Your task to perform on an android device: Show the shopping cart on ebay.com. Add "alienware aurora" to the cart on ebay.com Image 0: 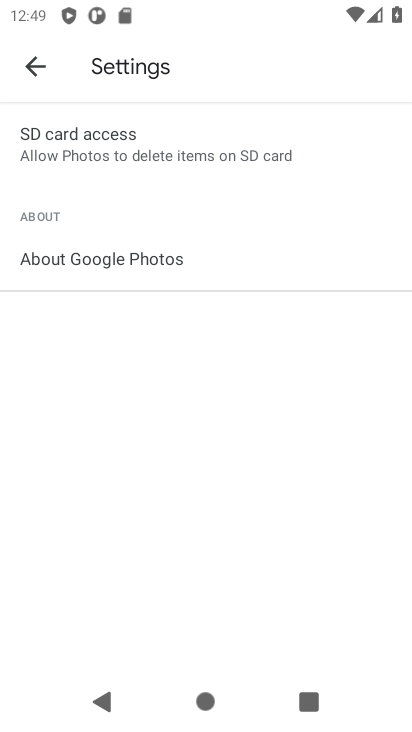
Step 0: press home button
Your task to perform on an android device: Show the shopping cart on ebay.com. Add "alienware aurora" to the cart on ebay.com Image 1: 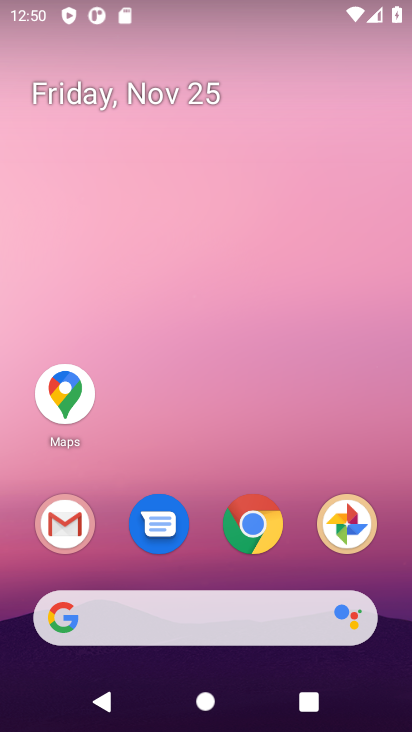
Step 1: click (255, 522)
Your task to perform on an android device: Show the shopping cart on ebay.com. Add "alienware aurora" to the cart on ebay.com Image 2: 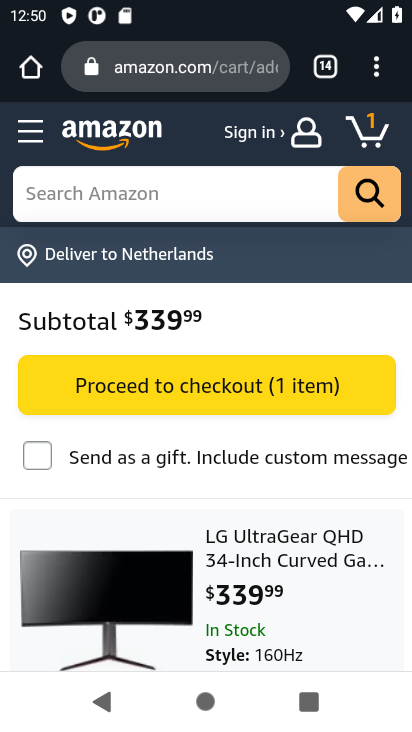
Step 2: click (152, 75)
Your task to perform on an android device: Show the shopping cart on ebay.com. Add "alienware aurora" to the cart on ebay.com Image 3: 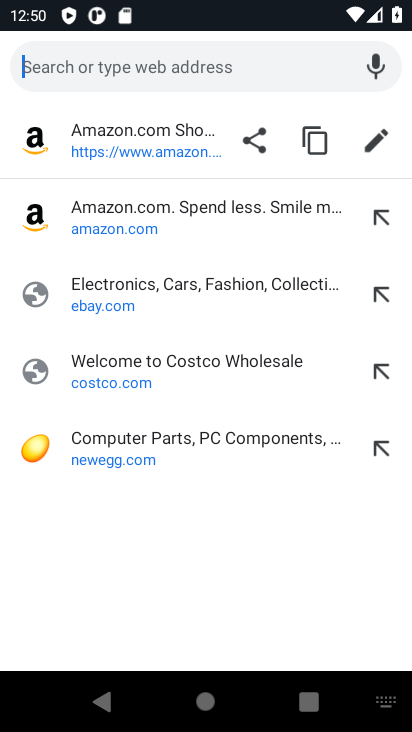
Step 3: click (107, 289)
Your task to perform on an android device: Show the shopping cart on ebay.com. Add "alienware aurora" to the cart on ebay.com Image 4: 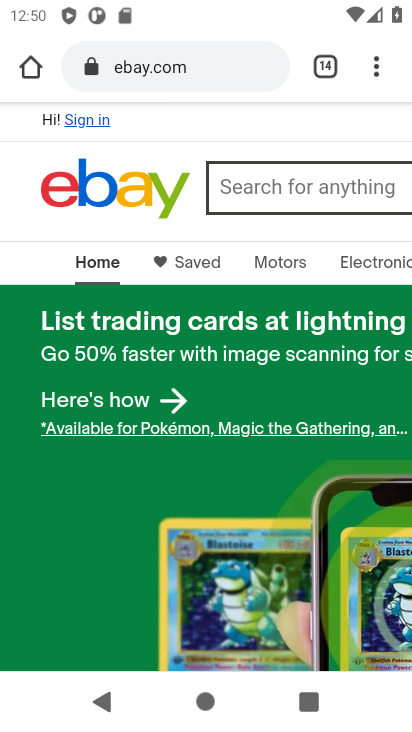
Step 4: drag from (318, 141) to (29, 170)
Your task to perform on an android device: Show the shopping cart on ebay.com. Add "alienware aurora" to the cart on ebay.com Image 5: 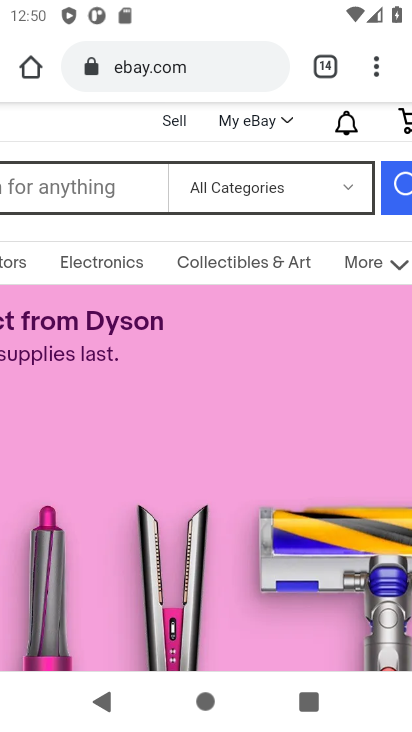
Step 5: drag from (374, 148) to (184, 147)
Your task to perform on an android device: Show the shopping cart on ebay.com. Add "alienware aurora" to the cart on ebay.com Image 6: 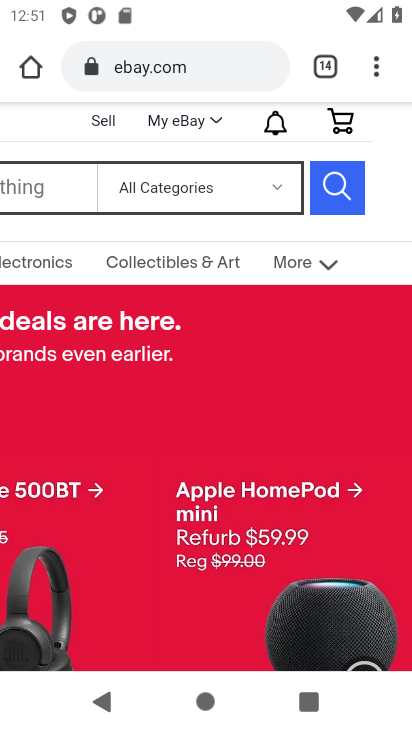
Step 6: click (341, 117)
Your task to perform on an android device: Show the shopping cart on ebay.com. Add "alienware aurora" to the cart on ebay.com Image 7: 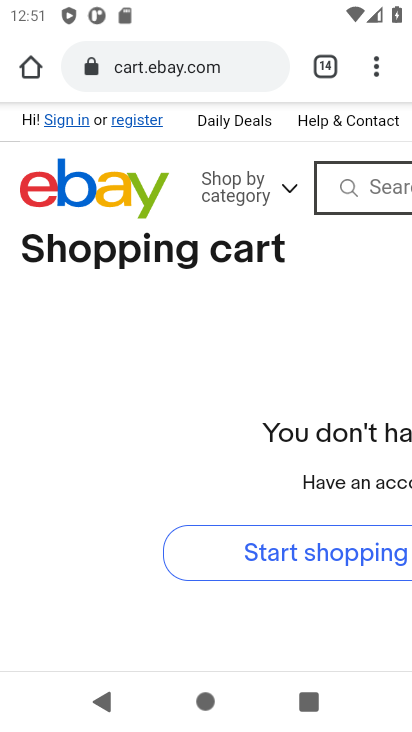
Step 7: drag from (332, 299) to (172, 316)
Your task to perform on an android device: Show the shopping cart on ebay.com. Add "alienware aurora" to the cart on ebay.com Image 8: 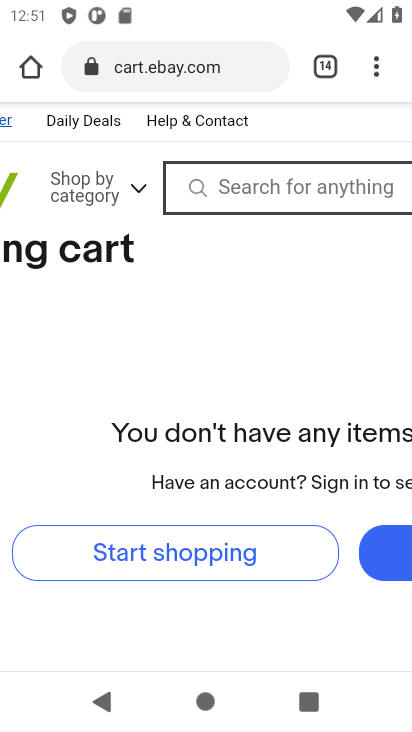
Step 8: click (254, 191)
Your task to perform on an android device: Show the shopping cart on ebay.com. Add "alienware aurora" to the cart on ebay.com Image 9: 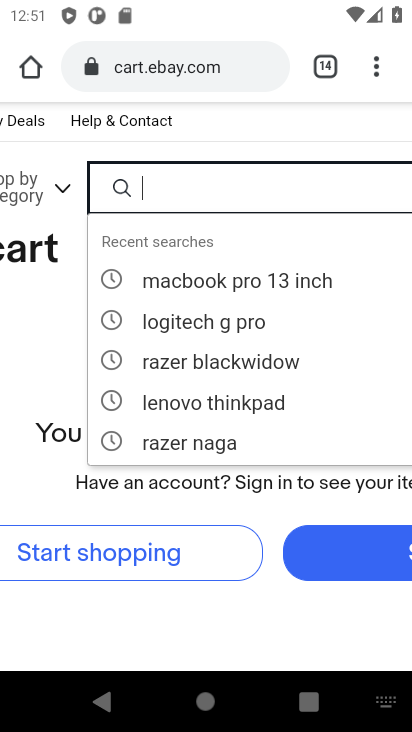
Step 9: type "alienware aurora"
Your task to perform on an android device: Show the shopping cart on ebay.com. Add "alienware aurora" to the cart on ebay.com Image 10: 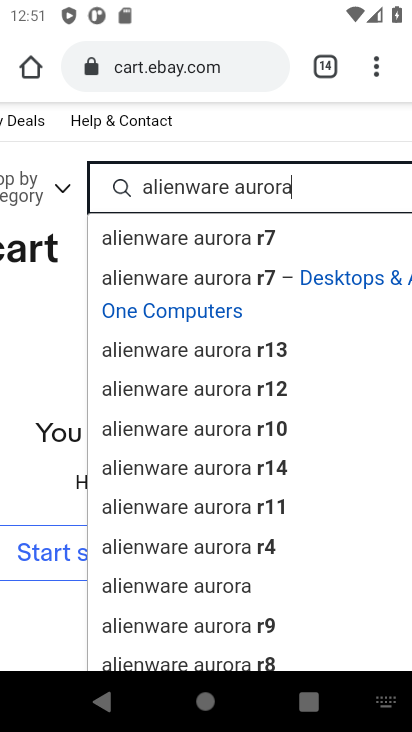
Step 10: click (218, 590)
Your task to perform on an android device: Show the shopping cart on ebay.com. Add "alienware aurora" to the cart on ebay.com Image 11: 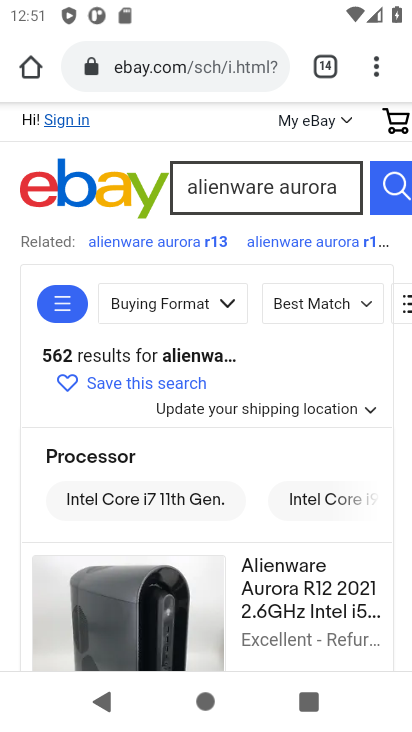
Step 11: drag from (188, 463) to (182, 287)
Your task to perform on an android device: Show the shopping cart on ebay.com. Add "alienware aurora" to the cart on ebay.com Image 12: 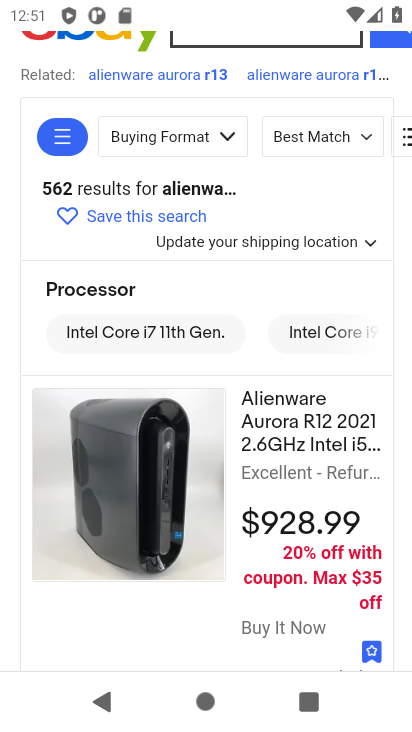
Step 12: click (119, 476)
Your task to perform on an android device: Show the shopping cart on ebay.com. Add "alienware aurora" to the cart on ebay.com Image 13: 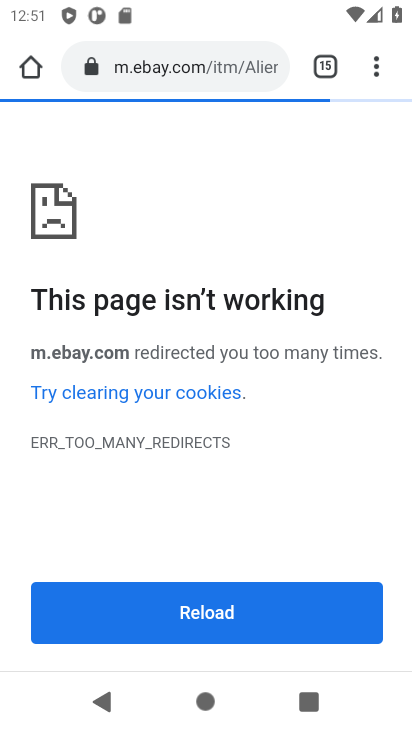
Step 13: task complete